Your task to perform on an android device: Show me productivity apps on the Play Store Image 0: 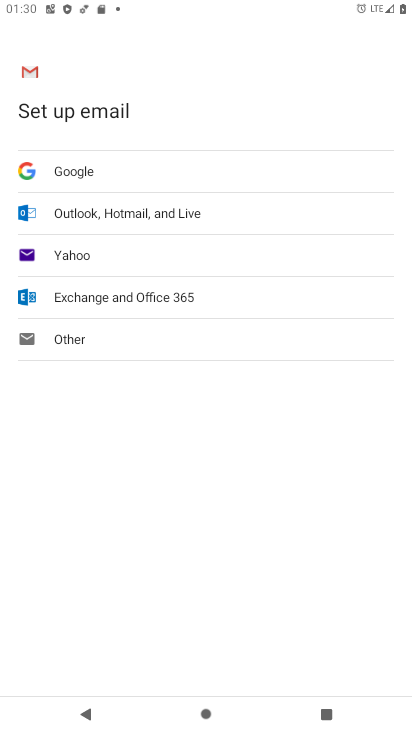
Step 0: press home button
Your task to perform on an android device: Show me productivity apps on the Play Store Image 1: 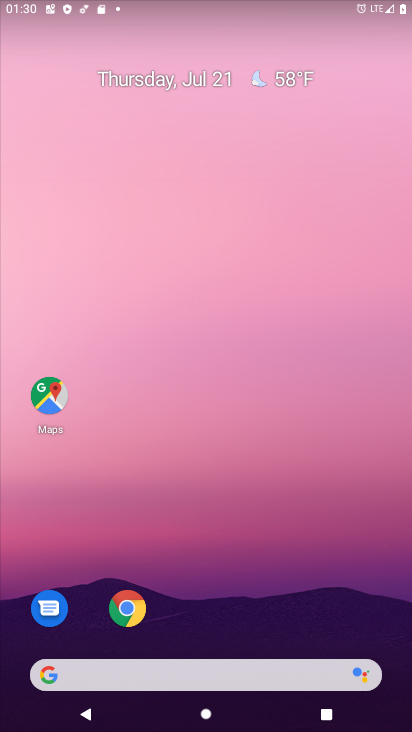
Step 1: drag from (213, 652) to (240, 14)
Your task to perform on an android device: Show me productivity apps on the Play Store Image 2: 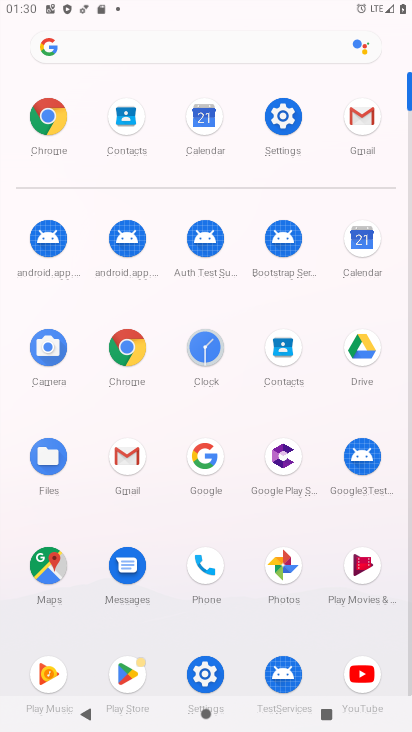
Step 2: click (123, 657)
Your task to perform on an android device: Show me productivity apps on the Play Store Image 3: 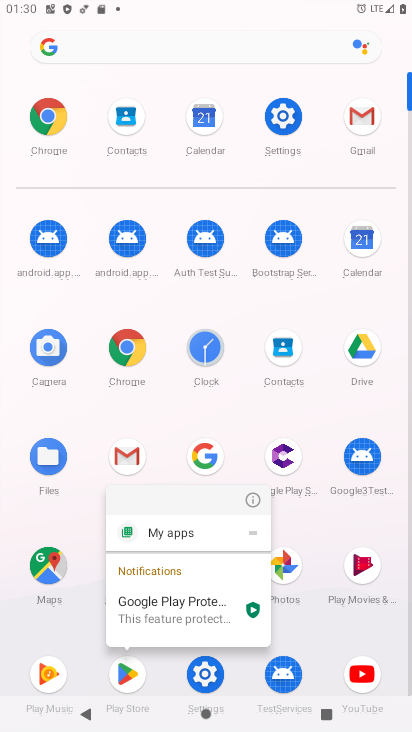
Step 3: click (123, 668)
Your task to perform on an android device: Show me productivity apps on the Play Store Image 4: 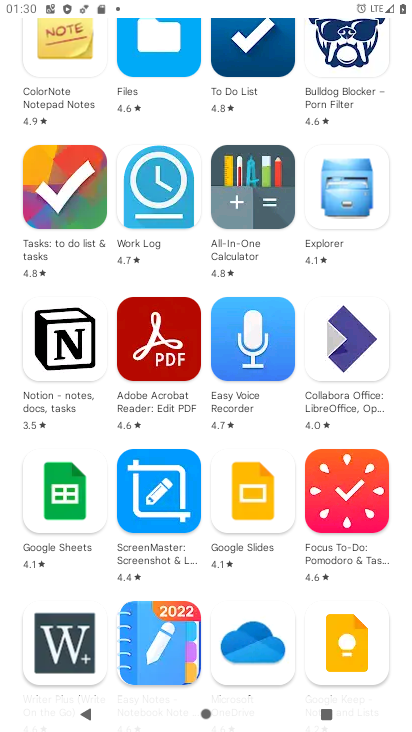
Step 4: task complete